Your task to perform on an android device: check the backup settings in the google photos Image 0: 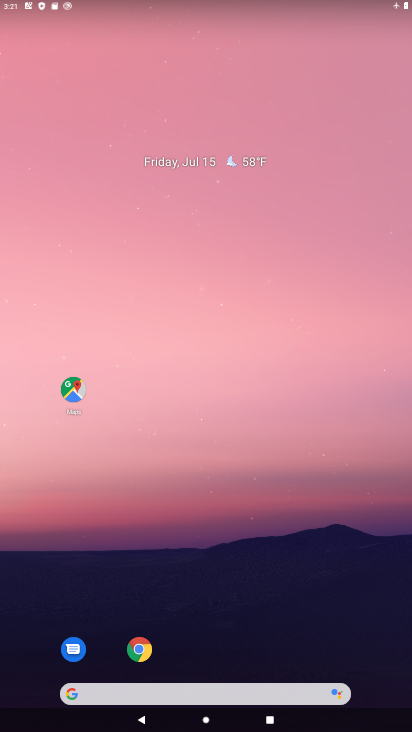
Step 0: drag from (217, 675) to (241, 309)
Your task to perform on an android device: check the backup settings in the google photos Image 1: 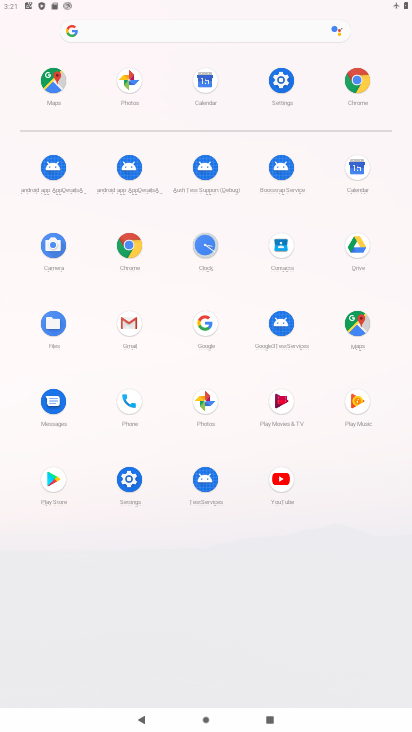
Step 1: click (207, 398)
Your task to perform on an android device: check the backup settings in the google photos Image 2: 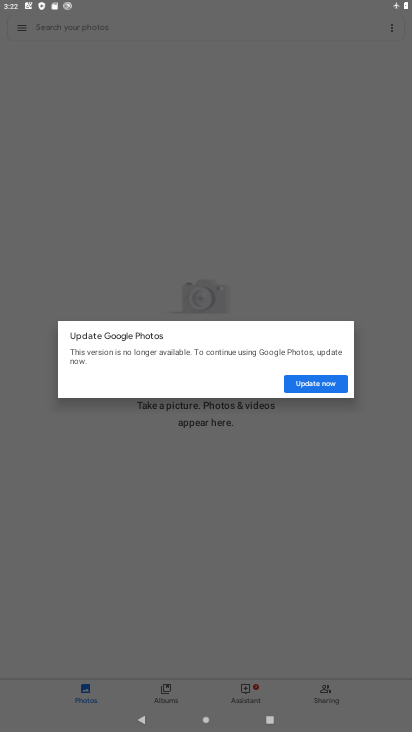
Step 2: task complete